Your task to perform on an android device: see tabs open on other devices in the chrome app Image 0: 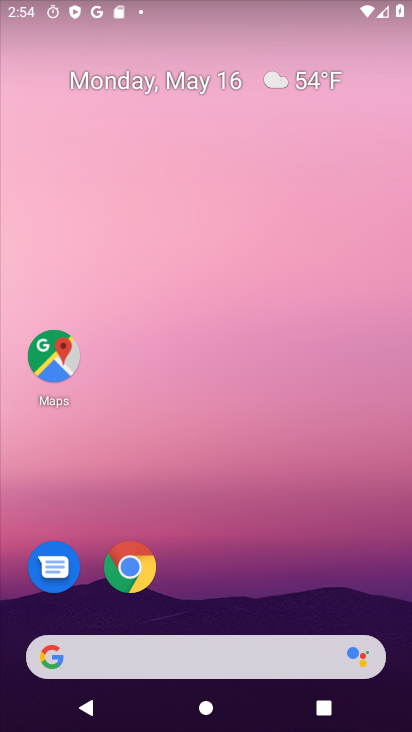
Step 0: click (129, 568)
Your task to perform on an android device: see tabs open on other devices in the chrome app Image 1: 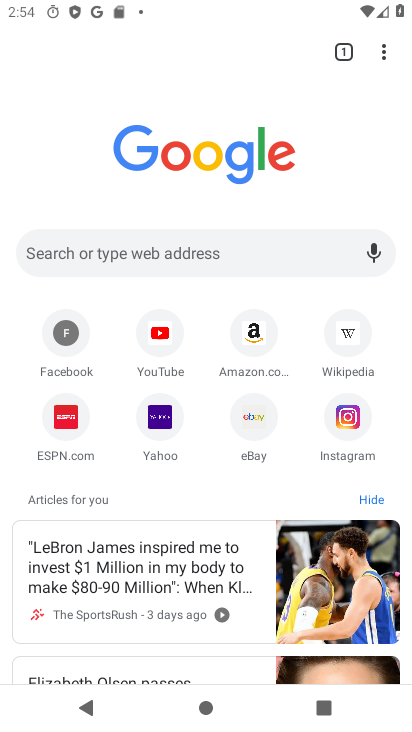
Step 1: click (385, 50)
Your task to perform on an android device: see tabs open on other devices in the chrome app Image 2: 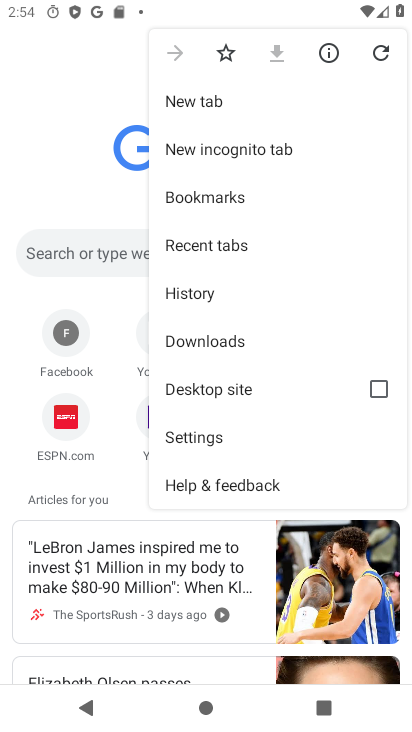
Step 2: click (205, 245)
Your task to perform on an android device: see tabs open on other devices in the chrome app Image 3: 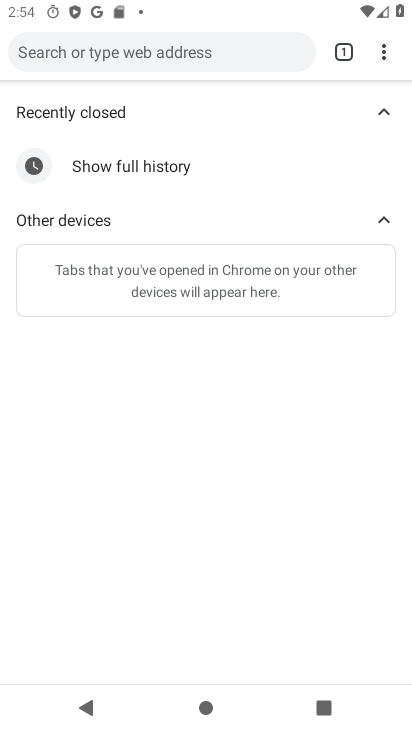
Step 3: task complete